Your task to perform on an android device: Show me the alarms in the clock app Image 0: 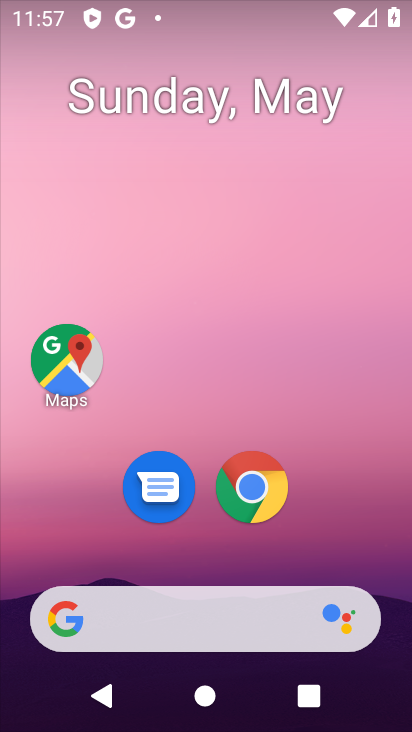
Step 0: drag from (201, 546) to (256, 4)
Your task to perform on an android device: Show me the alarms in the clock app Image 1: 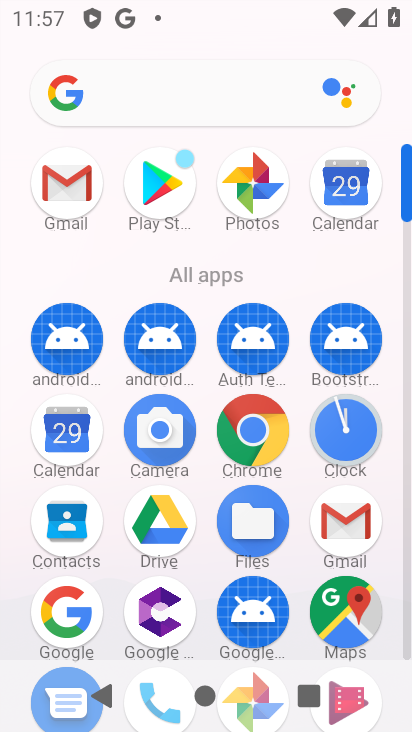
Step 1: click (351, 432)
Your task to perform on an android device: Show me the alarms in the clock app Image 2: 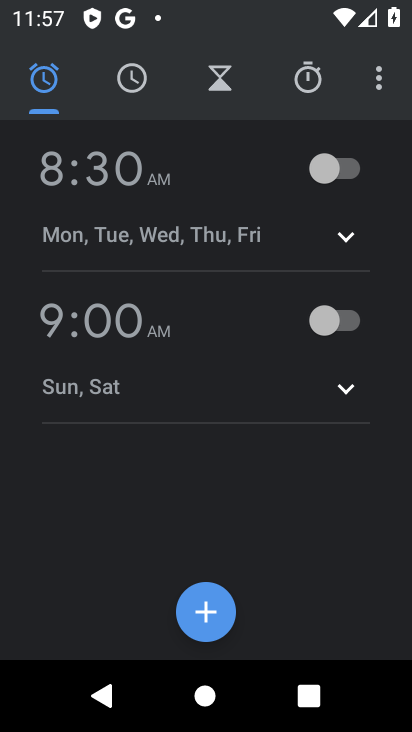
Step 2: task complete